Your task to perform on an android device: Go to Maps Image 0: 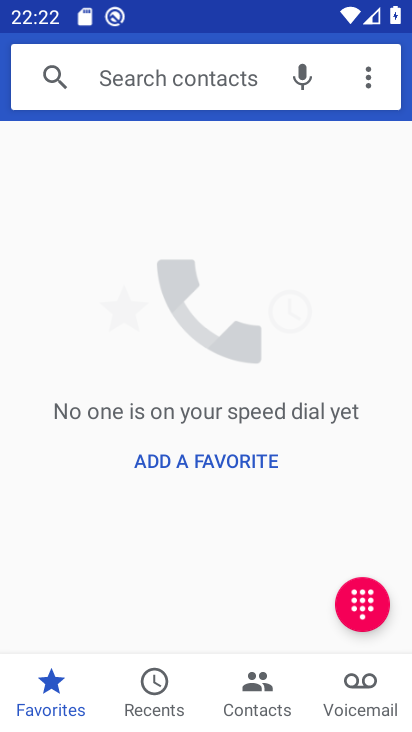
Step 0: press home button
Your task to perform on an android device: Go to Maps Image 1: 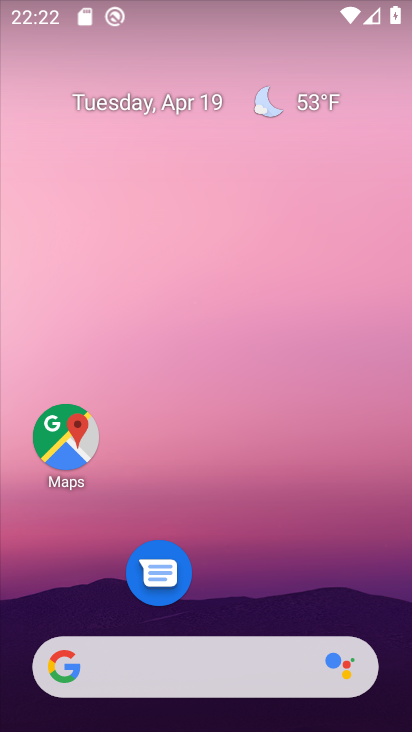
Step 1: click (63, 434)
Your task to perform on an android device: Go to Maps Image 2: 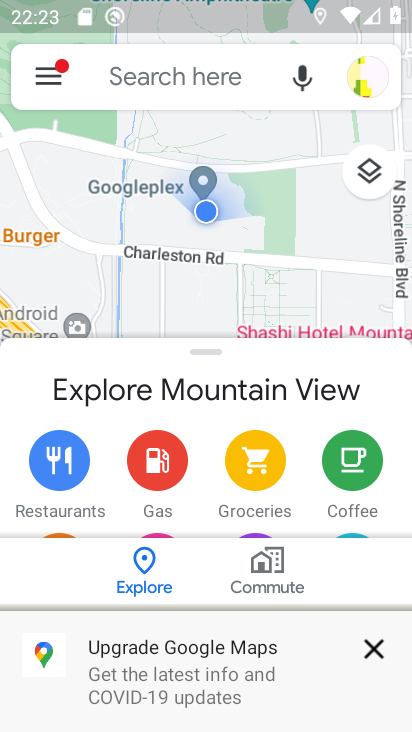
Step 2: click (374, 648)
Your task to perform on an android device: Go to Maps Image 3: 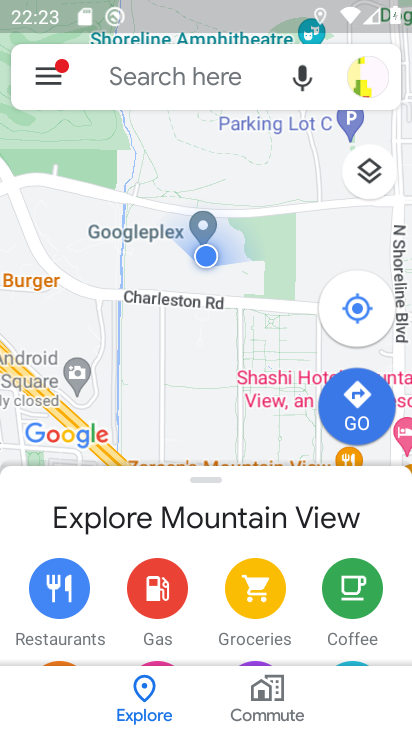
Step 3: click (49, 73)
Your task to perform on an android device: Go to Maps Image 4: 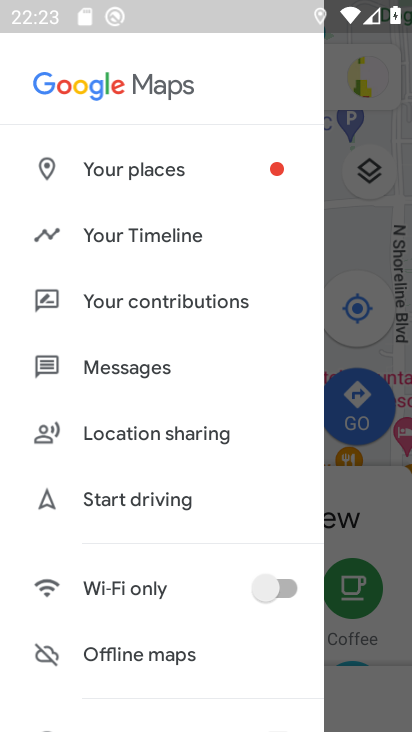
Step 4: drag from (191, 610) to (222, 312)
Your task to perform on an android device: Go to Maps Image 5: 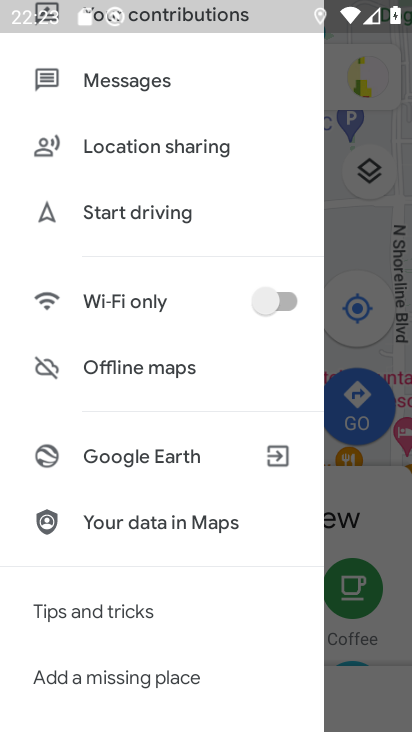
Step 5: click (373, 226)
Your task to perform on an android device: Go to Maps Image 6: 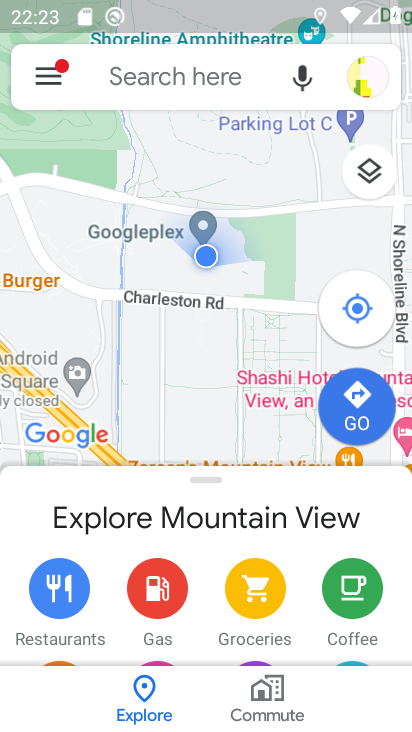
Step 6: task complete